Your task to perform on an android device: turn smart compose on in the gmail app Image 0: 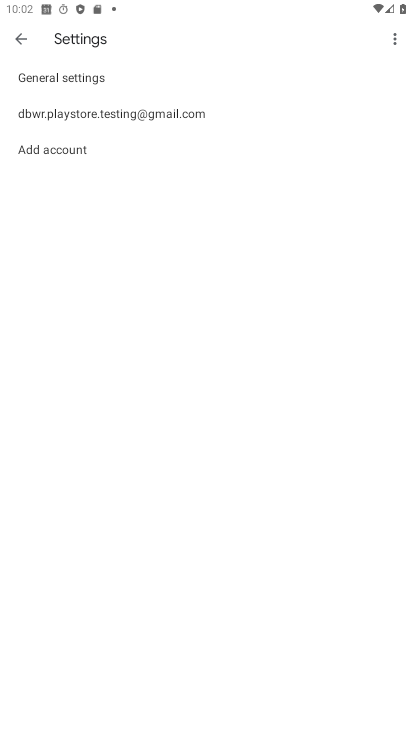
Step 0: click (130, 109)
Your task to perform on an android device: turn smart compose on in the gmail app Image 1: 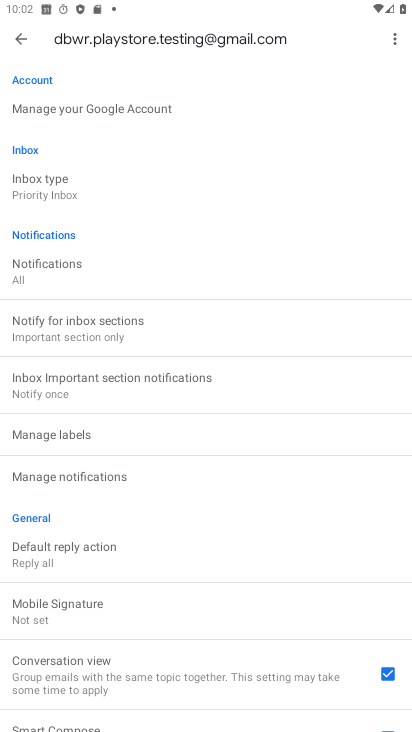
Step 1: drag from (240, 601) to (284, 227)
Your task to perform on an android device: turn smart compose on in the gmail app Image 2: 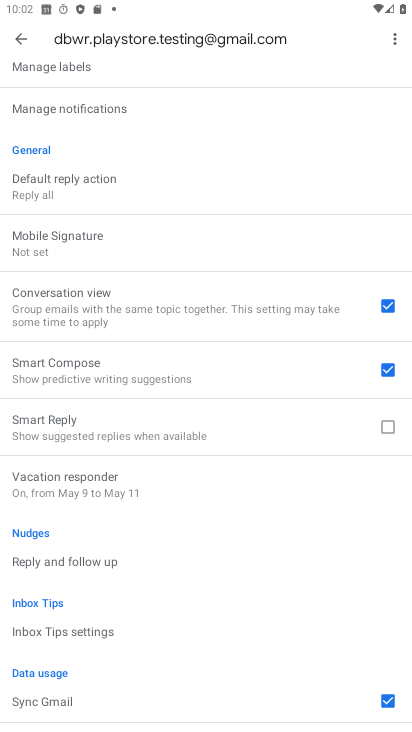
Step 2: click (379, 372)
Your task to perform on an android device: turn smart compose on in the gmail app Image 3: 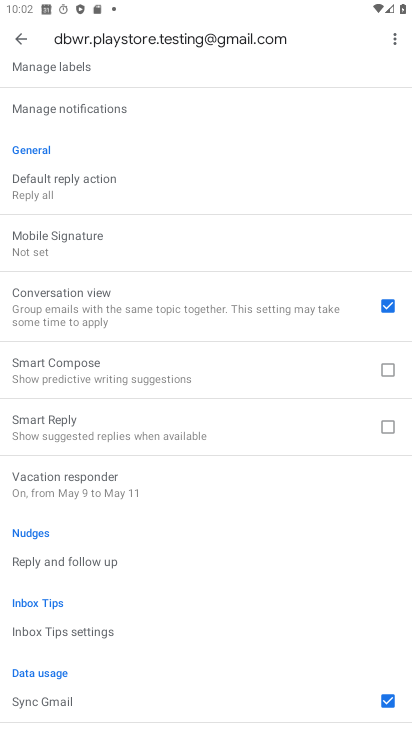
Step 3: task complete